Your task to perform on an android device: add a label to a message in the gmail app Image 0: 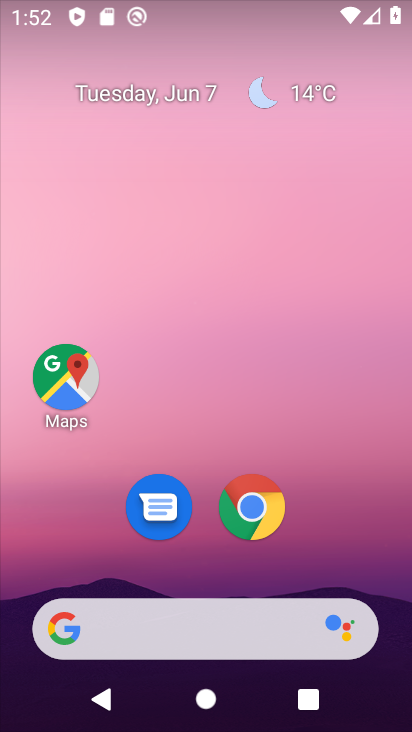
Step 0: drag from (322, 475) to (284, 111)
Your task to perform on an android device: add a label to a message in the gmail app Image 1: 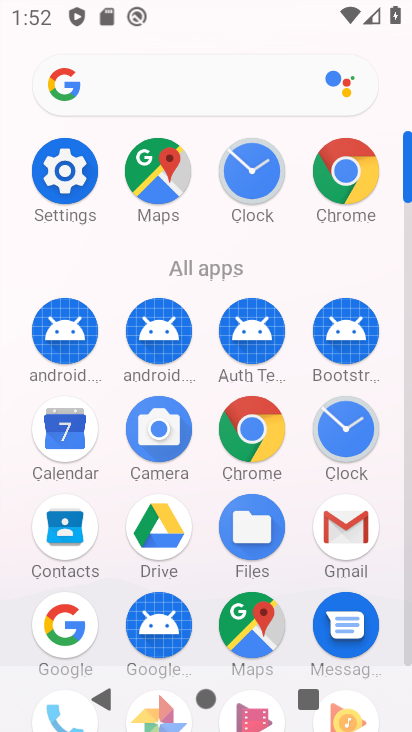
Step 1: click (338, 532)
Your task to perform on an android device: add a label to a message in the gmail app Image 2: 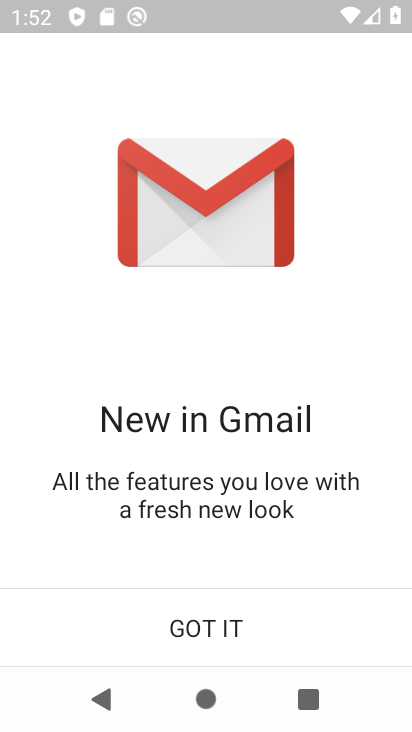
Step 2: click (244, 617)
Your task to perform on an android device: add a label to a message in the gmail app Image 3: 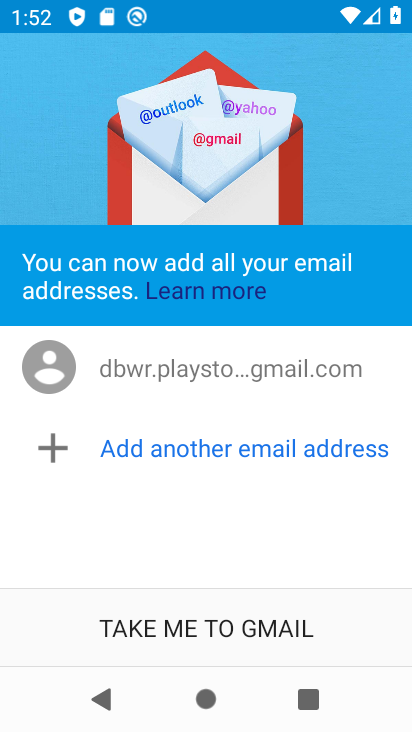
Step 3: click (170, 651)
Your task to perform on an android device: add a label to a message in the gmail app Image 4: 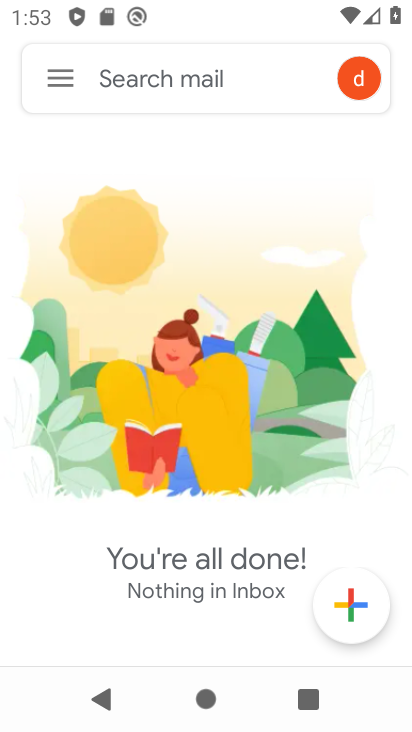
Step 4: click (56, 80)
Your task to perform on an android device: add a label to a message in the gmail app Image 5: 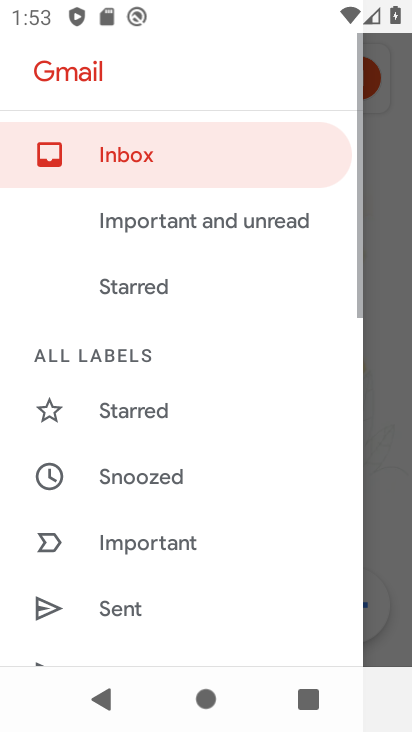
Step 5: drag from (189, 525) to (201, 64)
Your task to perform on an android device: add a label to a message in the gmail app Image 6: 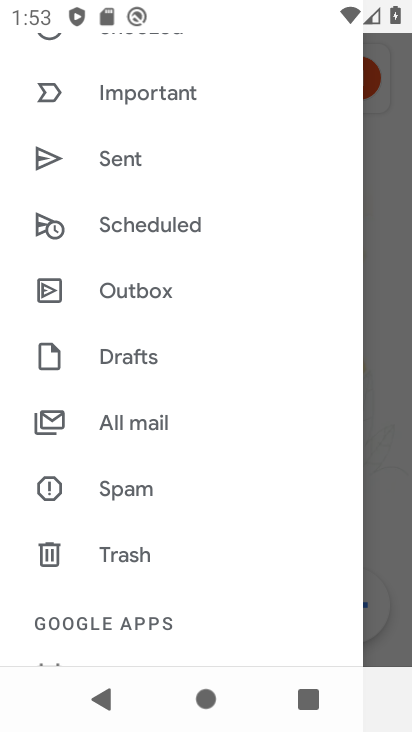
Step 6: click (130, 430)
Your task to perform on an android device: add a label to a message in the gmail app Image 7: 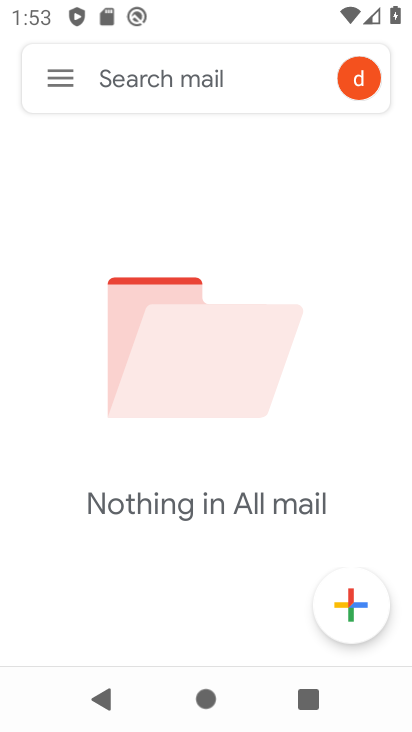
Step 7: task complete